Your task to perform on an android device: make emails show in primary in the gmail app Image 0: 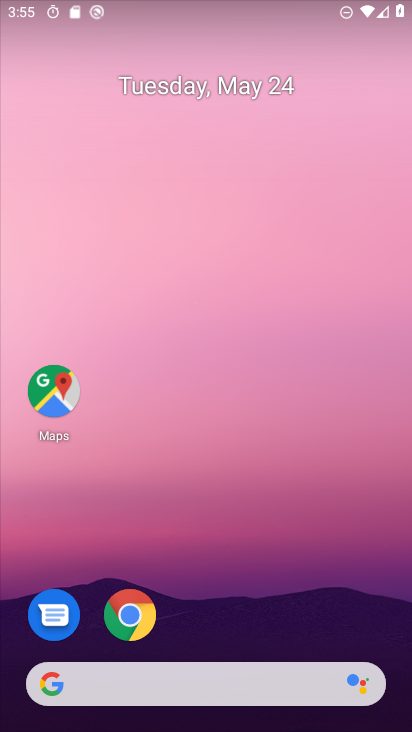
Step 0: drag from (231, 586) to (298, 132)
Your task to perform on an android device: make emails show in primary in the gmail app Image 1: 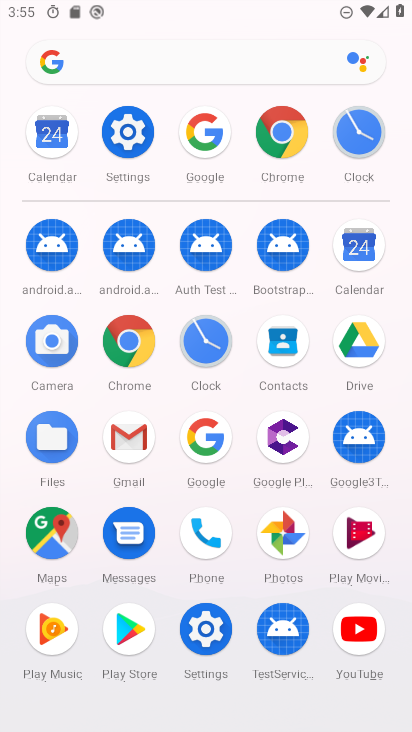
Step 1: click (134, 451)
Your task to perform on an android device: make emails show in primary in the gmail app Image 2: 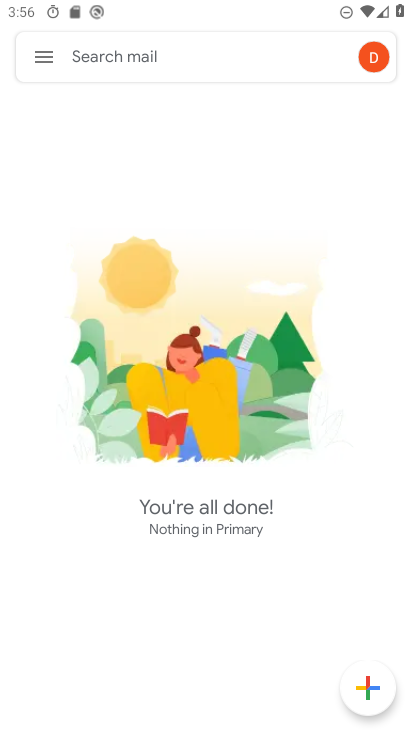
Step 2: click (47, 64)
Your task to perform on an android device: make emails show in primary in the gmail app Image 3: 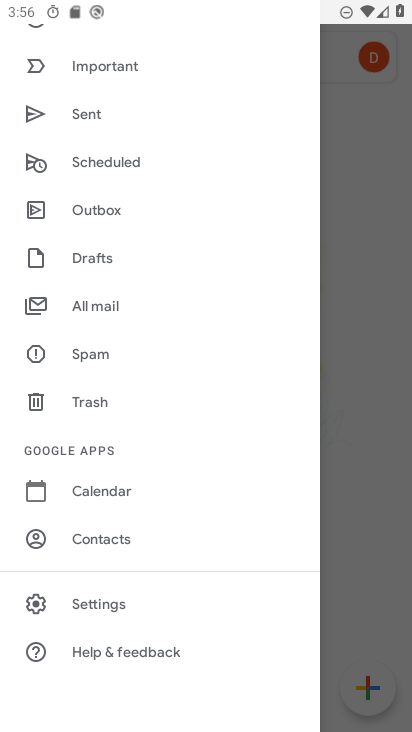
Step 3: click (122, 599)
Your task to perform on an android device: make emails show in primary in the gmail app Image 4: 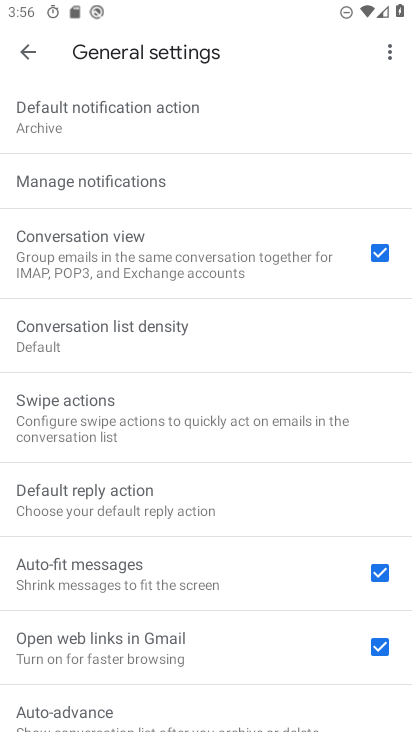
Step 4: task complete